Your task to perform on an android device: Open Google Chrome Image 0: 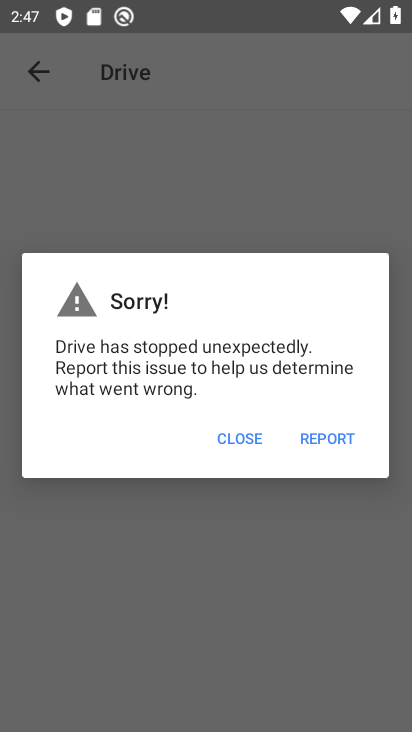
Step 0: press home button
Your task to perform on an android device: Open Google Chrome Image 1: 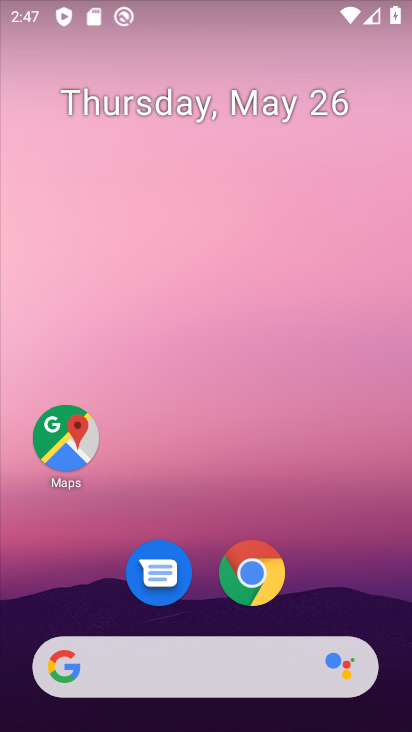
Step 1: click (253, 575)
Your task to perform on an android device: Open Google Chrome Image 2: 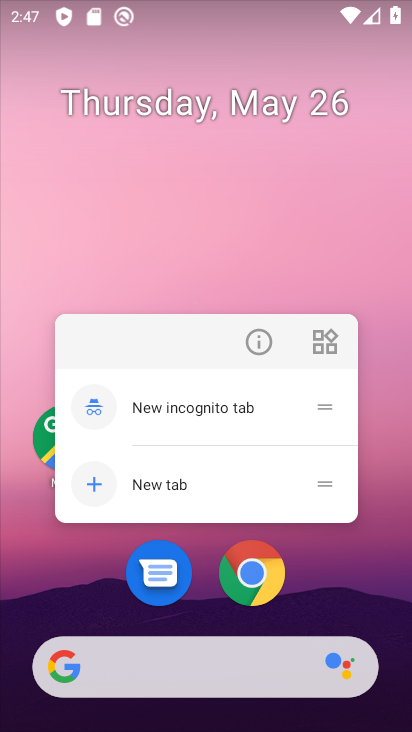
Step 2: click (253, 575)
Your task to perform on an android device: Open Google Chrome Image 3: 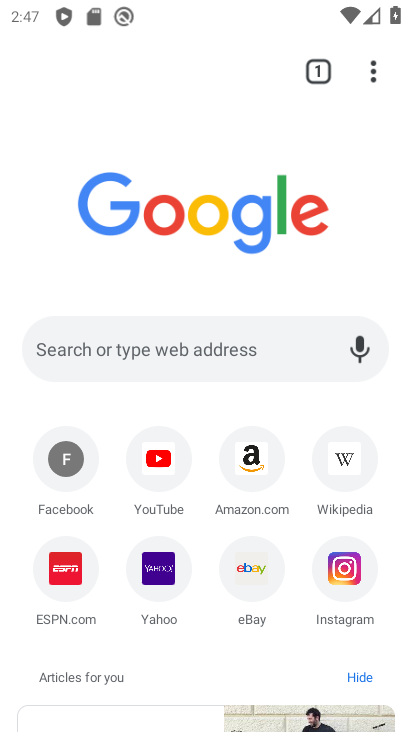
Step 3: press home button
Your task to perform on an android device: Open Google Chrome Image 4: 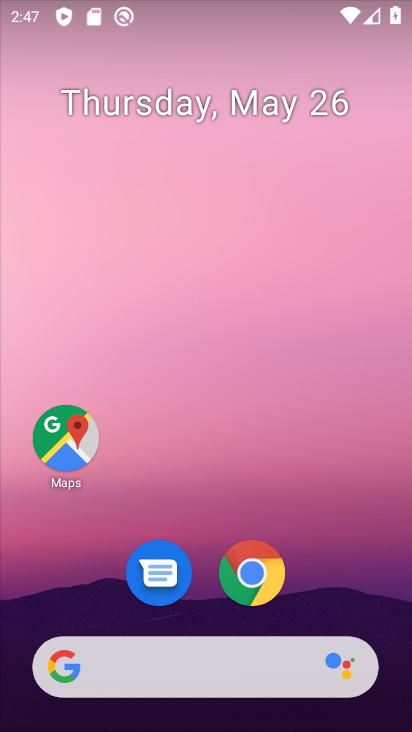
Step 4: click (257, 573)
Your task to perform on an android device: Open Google Chrome Image 5: 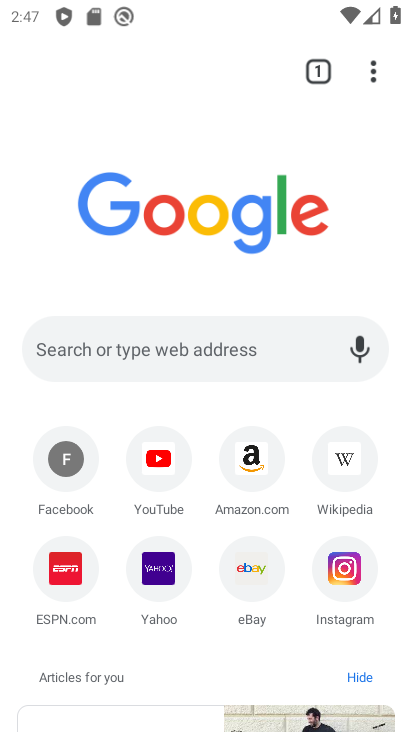
Step 5: task complete